Your task to perform on an android device: toggle data saver in the chrome app Image 0: 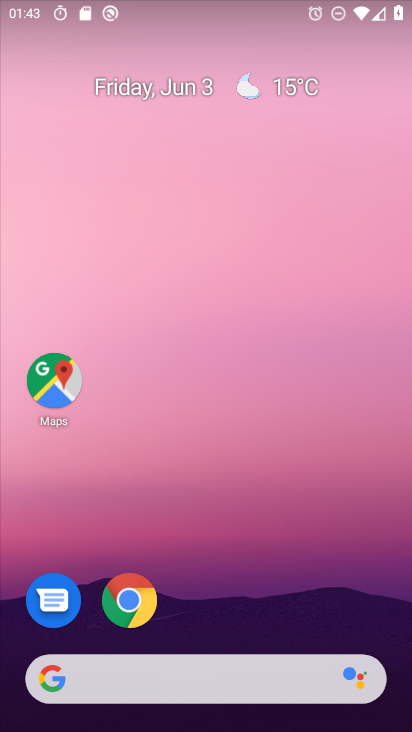
Step 0: click (130, 605)
Your task to perform on an android device: toggle data saver in the chrome app Image 1: 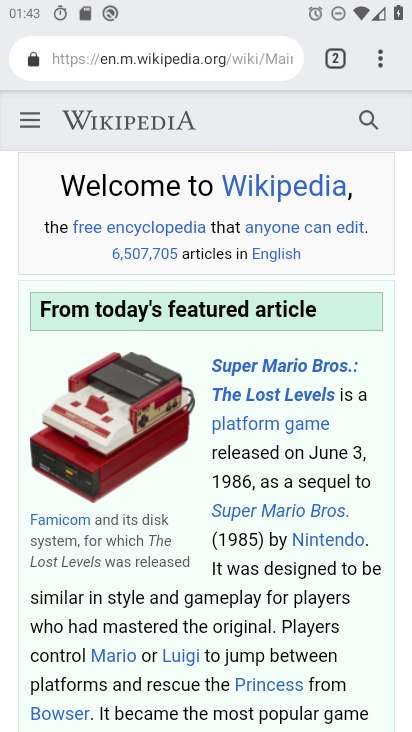
Step 1: click (374, 68)
Your task to perform on an android device: toggle data saver in the chrome app Image 2: 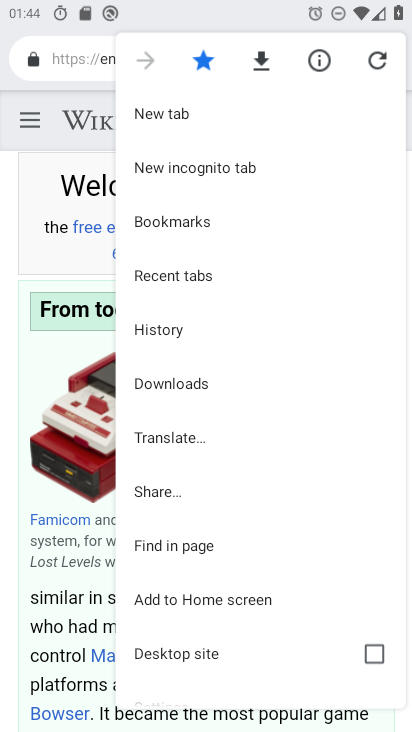
Step 2: drag from (240, 599) to (268, 200)
Your task to perform on an android device: toggle data saver in the chrome app Image 3: 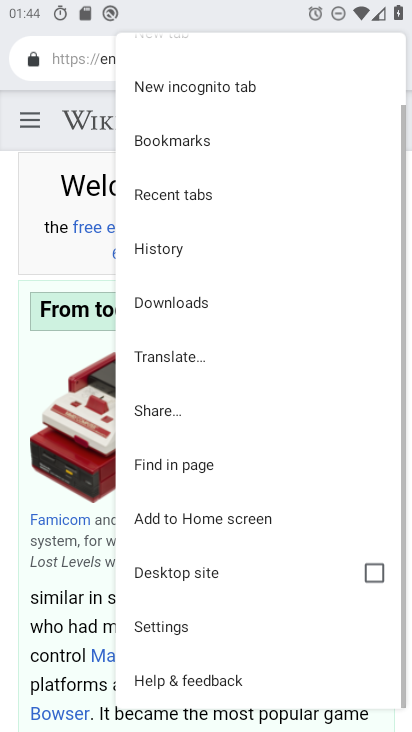
Step 3: click (172, 617)
Your task to perform on an android device: toggle data saver in the chrome app Image 4: 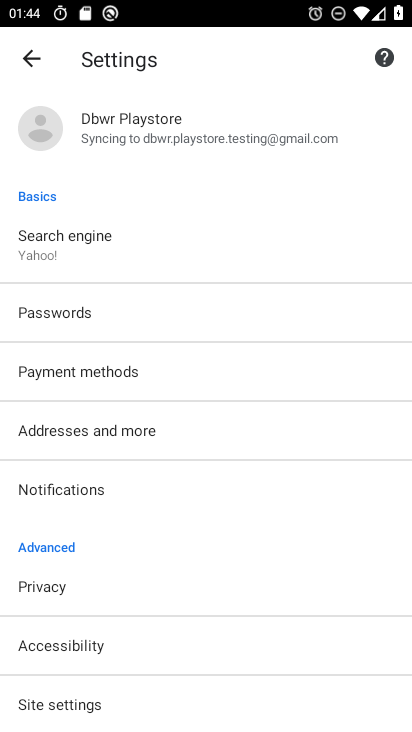
Step 4: drag from (229, 635) to (170, 245)
Your task to perform on an android device: toggle data saver in the chrome app Image 5: 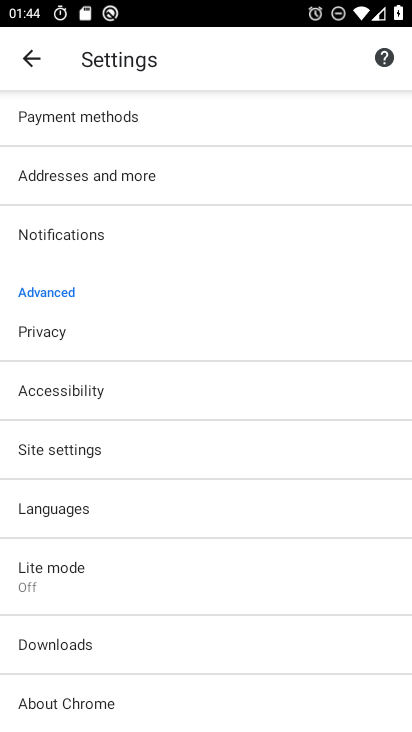
Step 5: click (90, 577)
Your task to perform on an android device: toggle data saver in the chrome app Image 6: 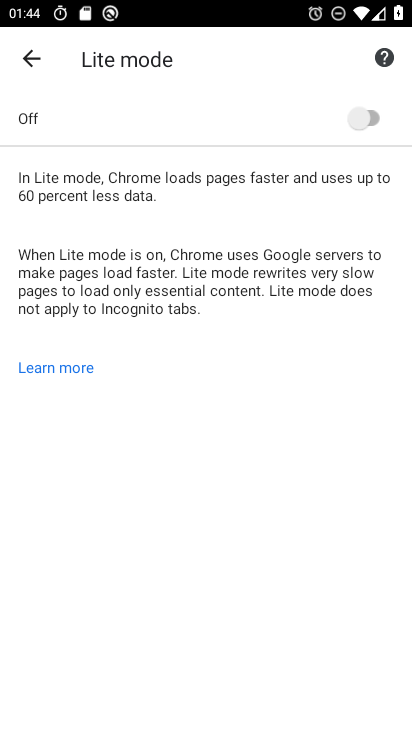
Step 6: click (374, 109)
Your task to perform on an android device: toggle data saver in the chrome app Image 7: 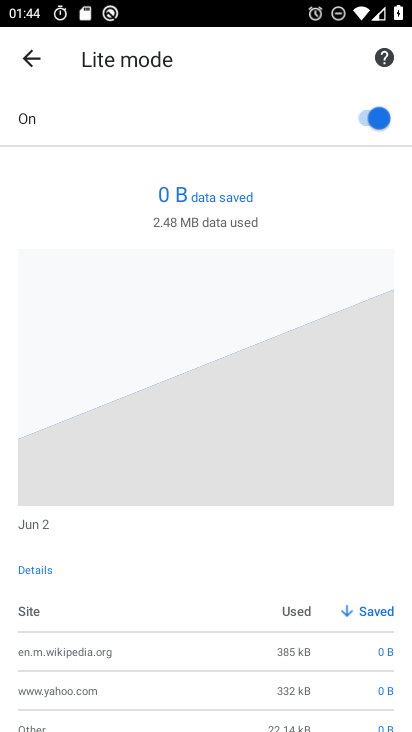
Step 7: task complete